Your task to perform on an android device: delete a single message in the gmail app Image 0: 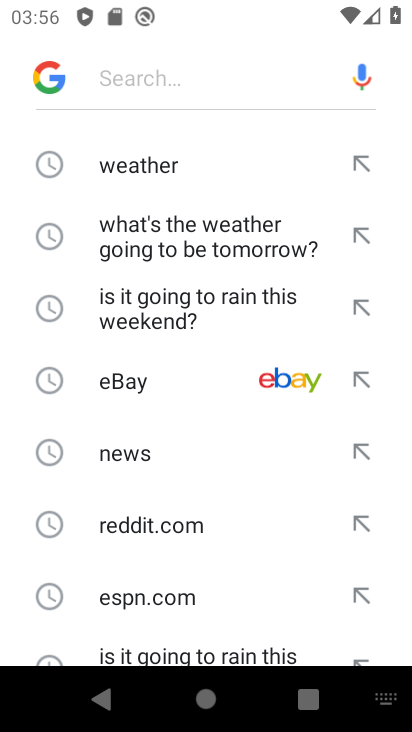
Step 0: press home button
Your task to perform on an android device: delete a single message in the gmail app Image 1: 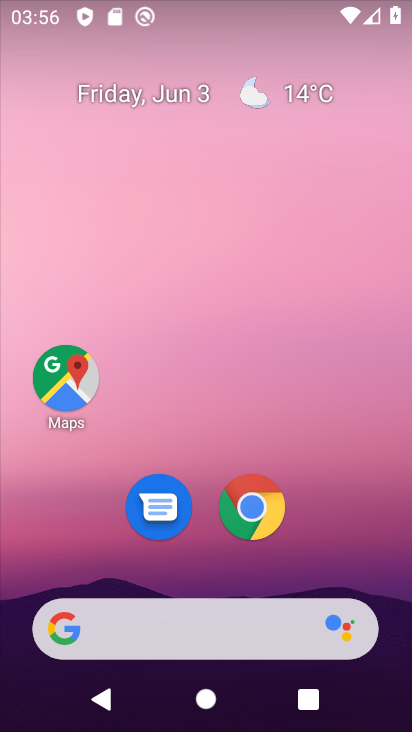
Step 1: drag from (196, 537) to (126, 77)
Your task to perform on an android device: delete a single message in the gmail app Image 2: 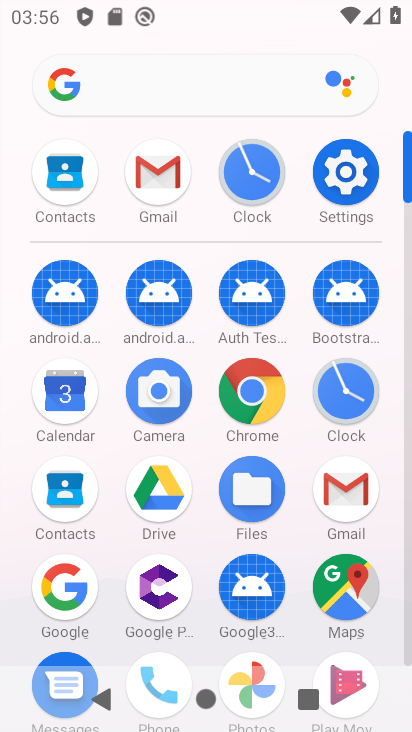
Step 2: click (150, 177)
Your task to perform on an android device: delete a single message in the gmail app Image 3: 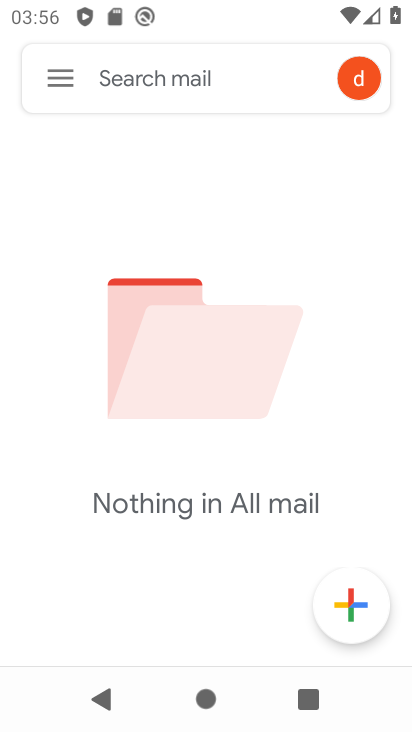
Step 3: click (56, 84)
Your task to perform on an android device: delete a single message in the gmail app Image 4: 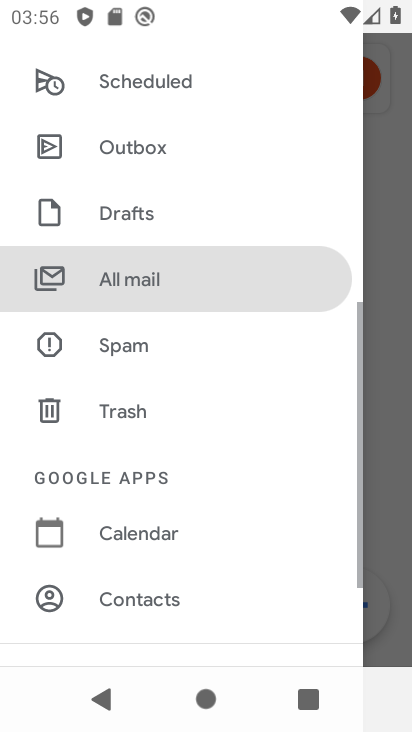
Step 4: click (119, 284)
Your task to perform on an android device: delete a single message in the gmail app Image 5: 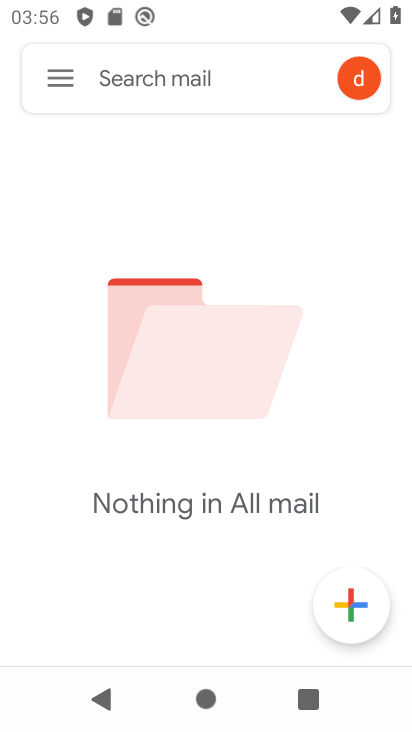
Step 5: task complete